Your task to perform on an android device: snooze an email in the gmail app Image 0: 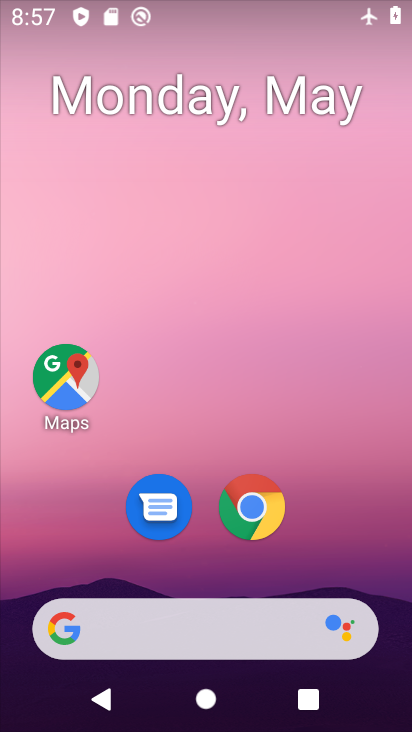
Step 0: drag from (211, 497) to (262, 24)
Your task to perform on an android device: snooze an email in the gmail app Image 1: 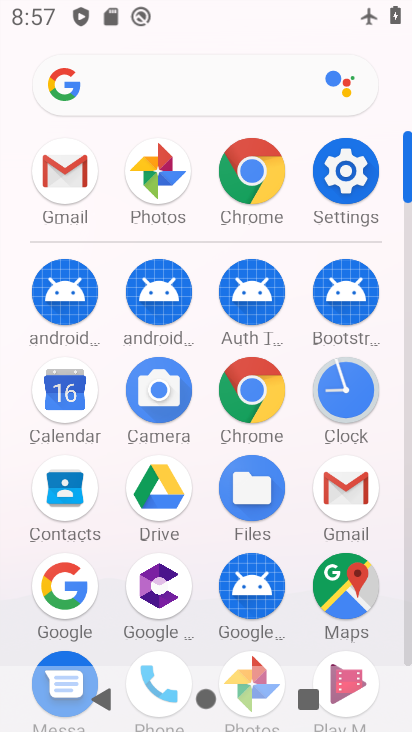
Step 1: click (354, 495)
Your task to perform on an android device: snooze an email in the gmail app Image 2: 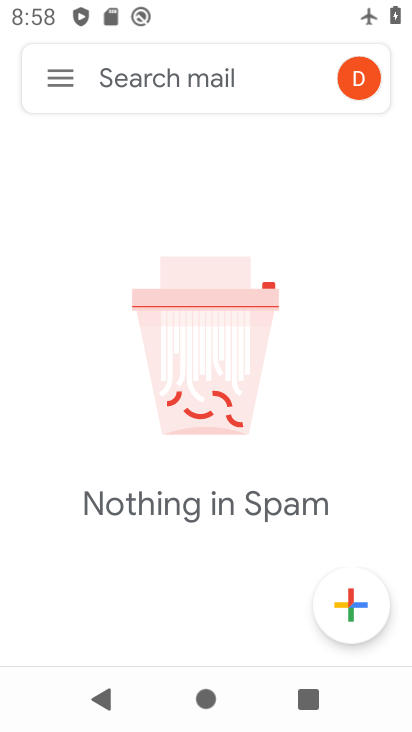
Step 2: click (60, 78)
Your task to perform on an android device: snooze an email in the gmail app Image 3: 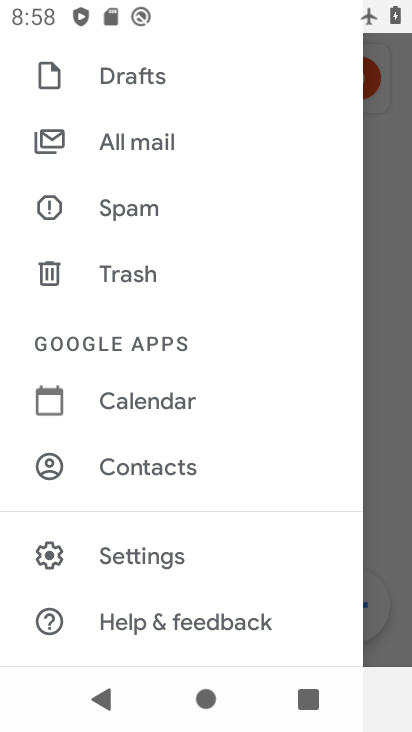
Step 3: click (142, 144)
Your task to perform on an android device: snooze an email in the gmail app Image 4: 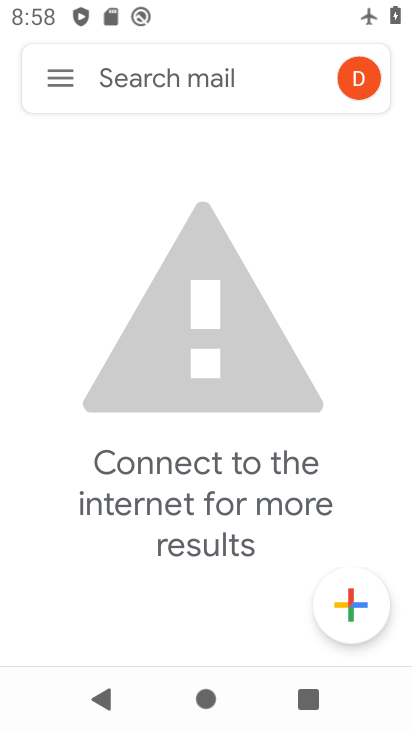
Step 4: task complete